Your task to perform on an android device: Open Google Chrome and open the bookmarks view Image 0: 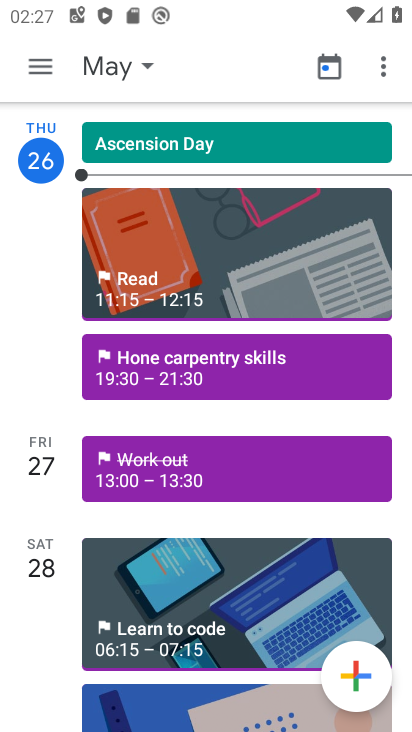
Step 0: press home button
Your task to perform on an android device: Open Google Chrome and open the bookmarks view Image 1: 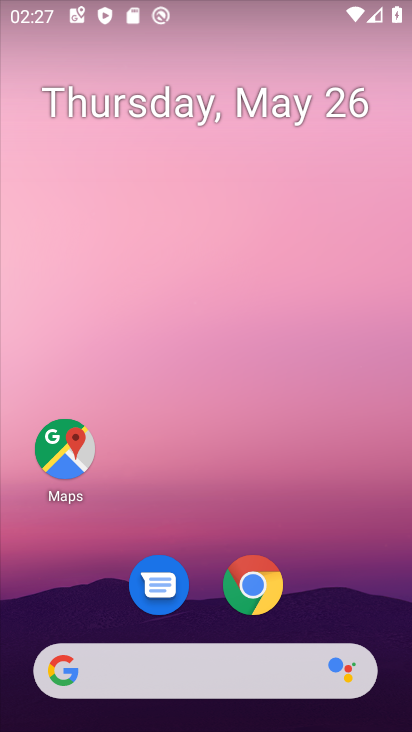
Step 1: click (252, 590)
Your task to perform on an android device: Open Google Chrome and open the bookmarks view Image 2: 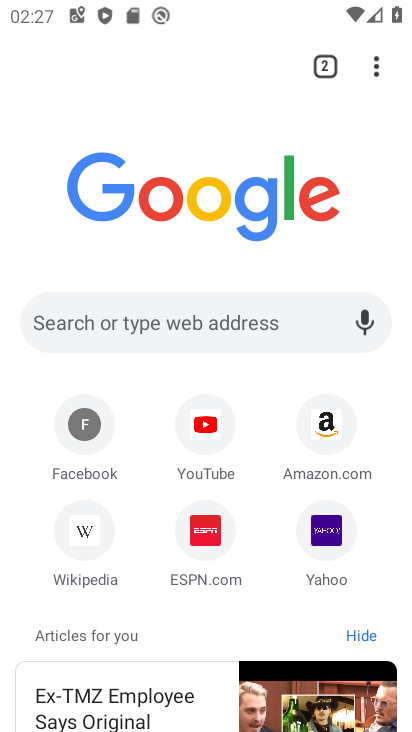
Step 2: click (373, 57)
Your task to perform on an android device: Open Google Chrome and open the bookmarks view Image 3: 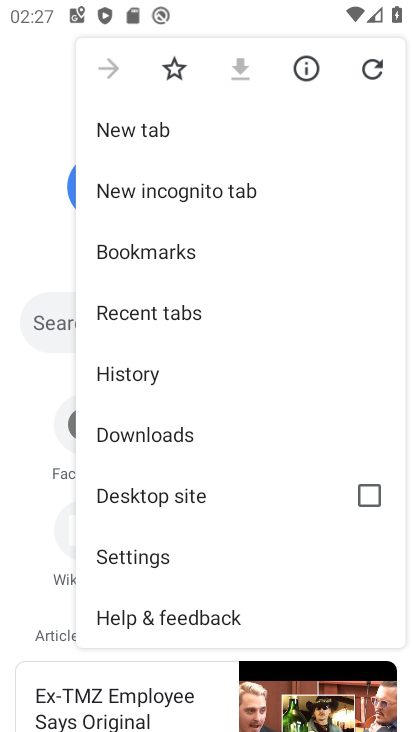
Step 3: click (192, 239)
Your task to perform on an android device: Open Google Chrome and open the bookmarks view Image 4: 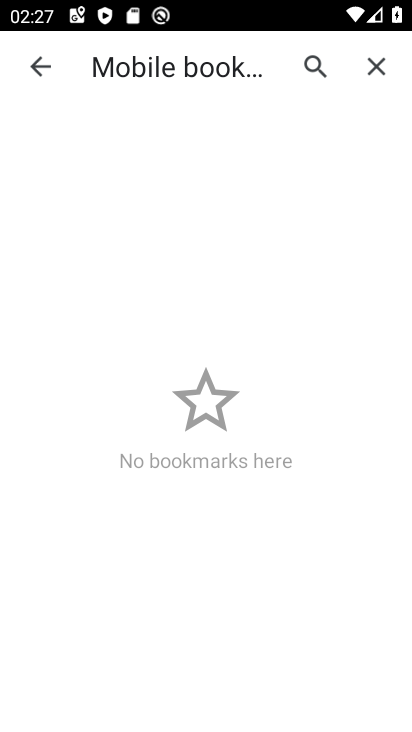
Step 4: task complete